Your task to perform on an android device: turn on bluetooth scan Image 0: 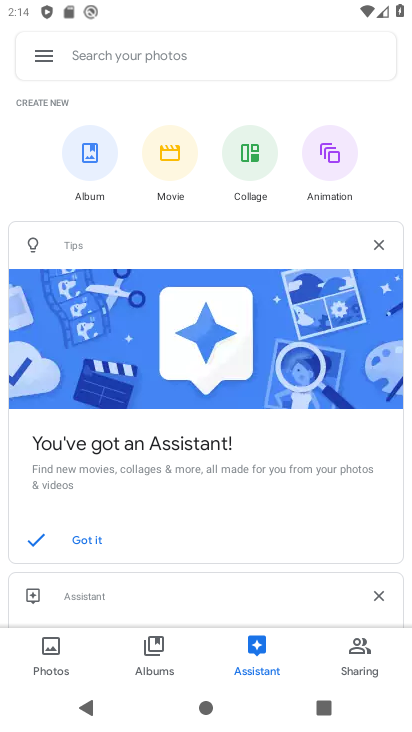
Step 0: press home button
Your task to perform on an android device: turn on bluetooth scan Image 1: 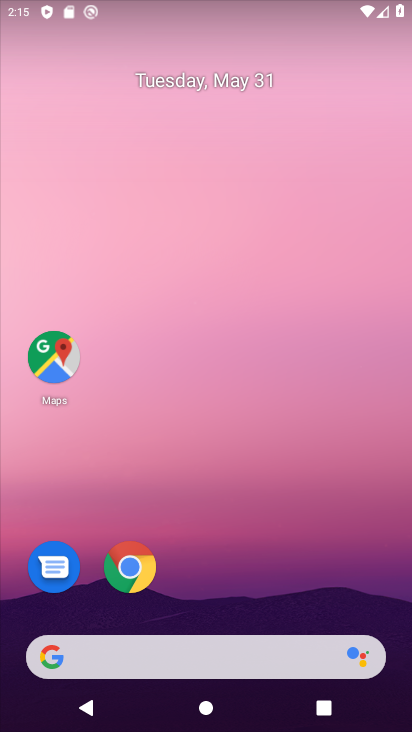
Step 1: drag from (258, 604) to (230, 242)
Your task to perform on an android device: turn on bluetooth scan Image 2: 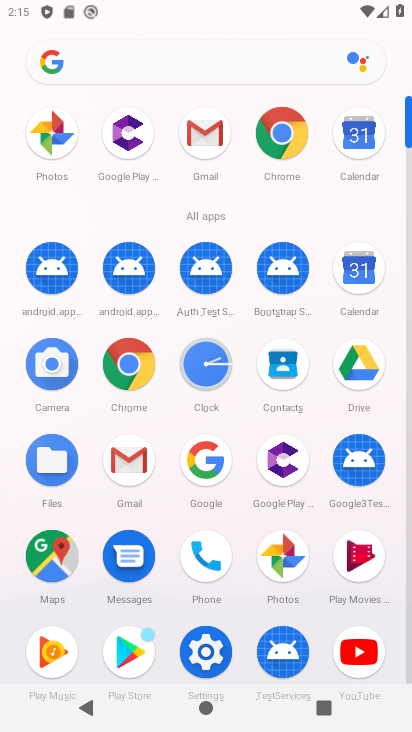
Step 2: click (218, 644)
Your task to perform on an android device: turn on bluetooth scan Image 3: 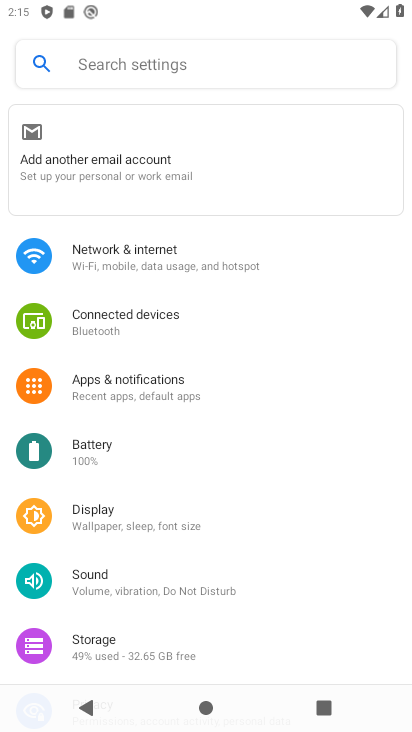
Step 3: drag from (195, 653) to (164, 205)
Your task to perform on an android device: turn on bluetooth scan Image 4: 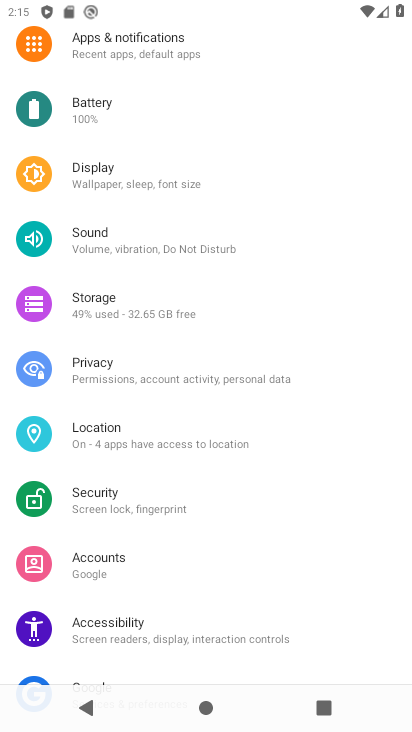
Step 4: click (136, 446)
Your task to perform on an android device: turn on bluetooth scan Image 5: 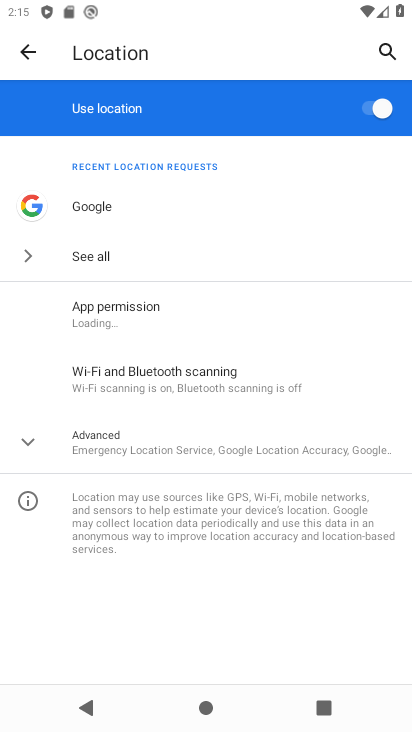
Step 5: click (195, 374)
Your task to perform on an android device: turn on bluetooth scan Image 6: 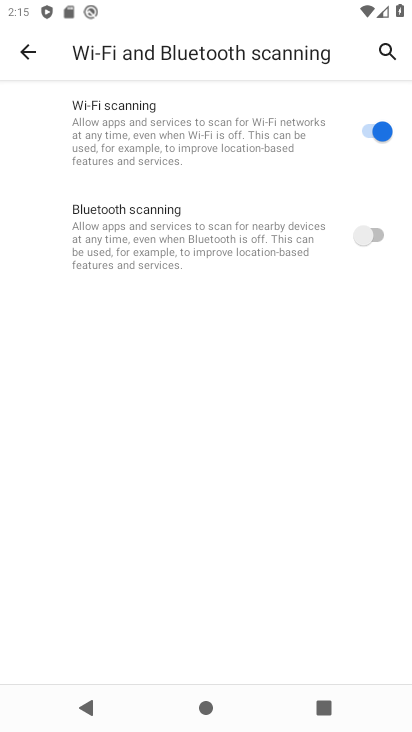
Step 6: click (379, 242)
Your task to perform on an android device: turn on bluetooth scan Image 7: 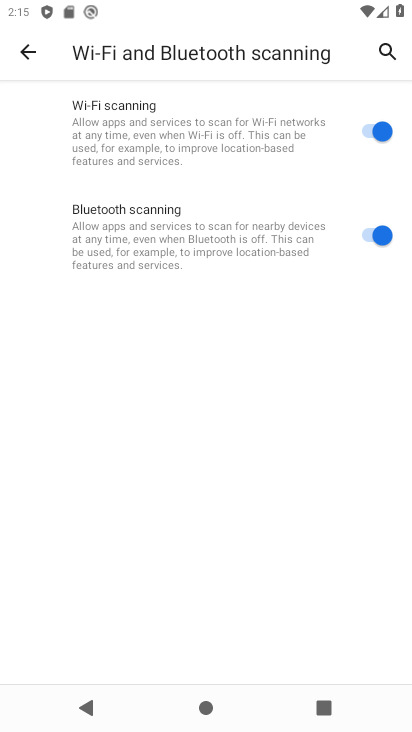
Step 7: task complete